Your task to perform on an android device: Show me the alarms in the clock app Image 0: 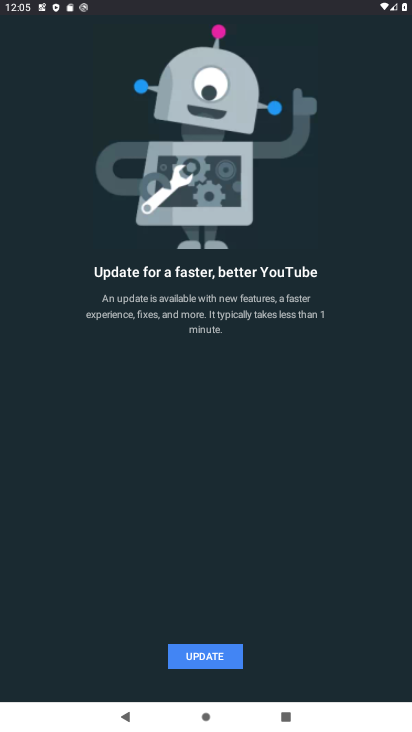
Step 0: press home button
Your task to perform on an android device: Show me the alarms in the clock app Image 1: 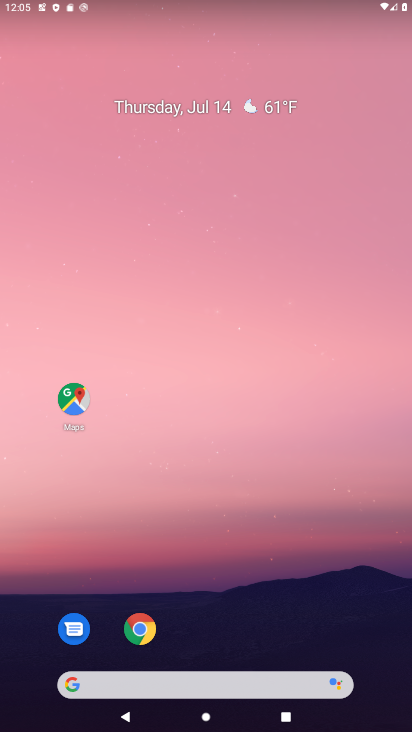
Step 1: drag from (258, 583) to (237, 53)
Your task to perform on an android device: Show me the alarms in the clock app Image 2: 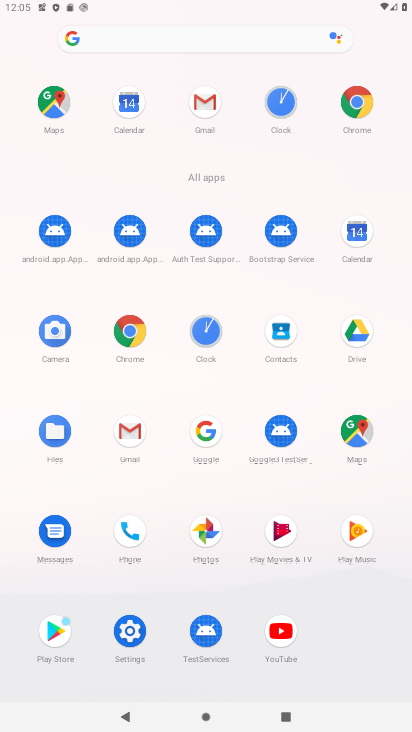
Step 2: click (208, 325)
Your task to perform on an android device: Show me the alarms in the clock app Image 3: 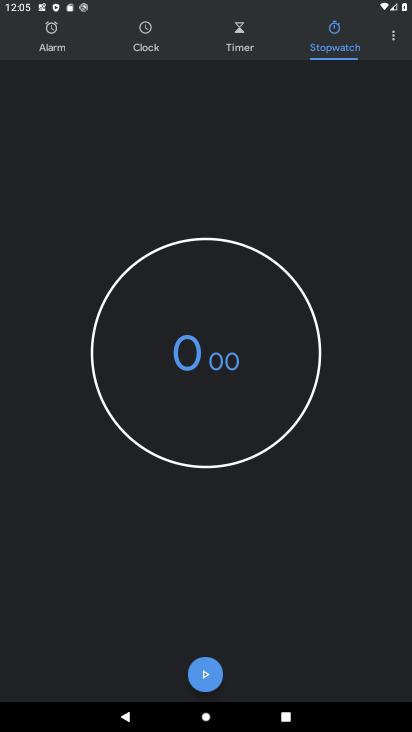
Step 3: click (45, 39)
Your task to perform on an android device: Show me the alarms in the clock app Image 4: 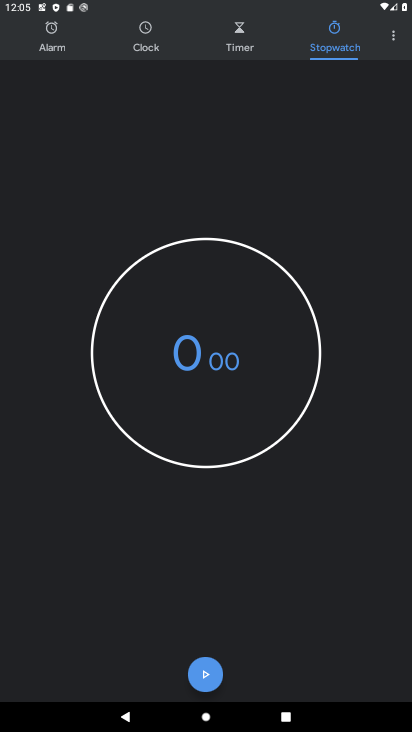
Step 4: click (45, 39)
Your task to perform on an android device: Show me the alarms in the clock app Image 5: 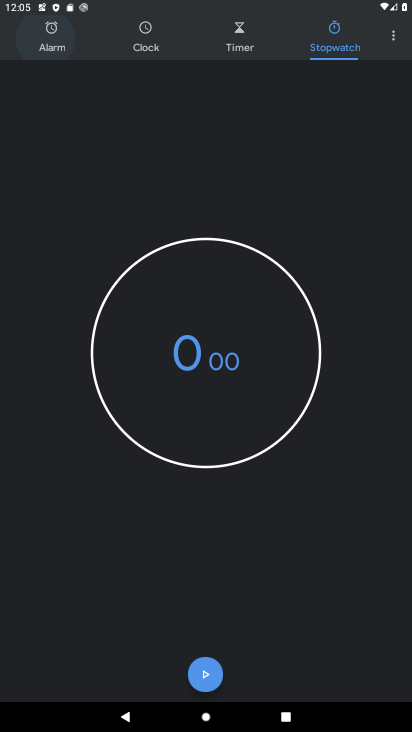
Step 5: click (45, 39)
Your task to perform on an android device: Show me the alarms in the clock app Image 6: 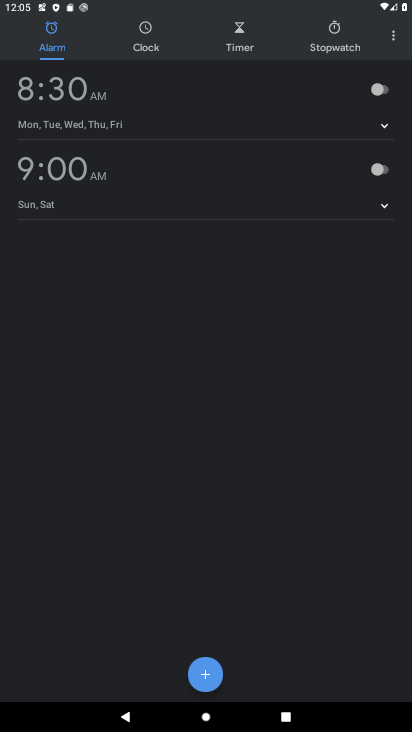
Step 6: task complete